Your task to perform on an android device: install app "Google Chrome" Image 0: 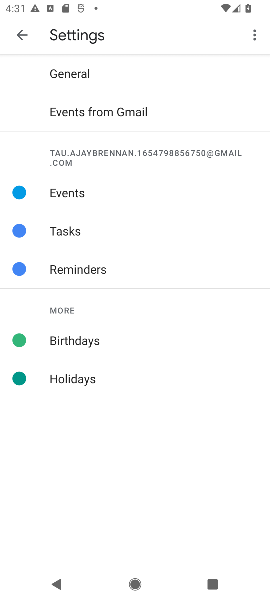
Step 0: press home button
Your task to perform on an android device: install app "Google Chrome" Image 1: 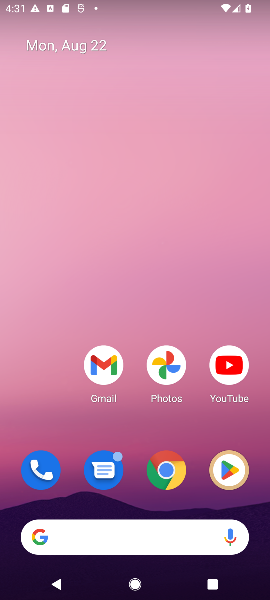
Step 1: drag from (115, 510) to (150, 74)
Your task to perform on an android device: install app "Google Chrome" Image 2: 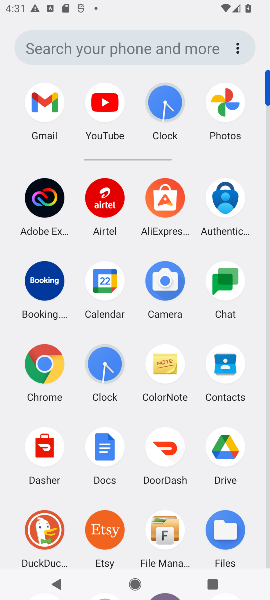
Step 2: drag from (141, 505) to (165, 167)
Your task to perform on an android device: install app "Google Chrome" Image 3: 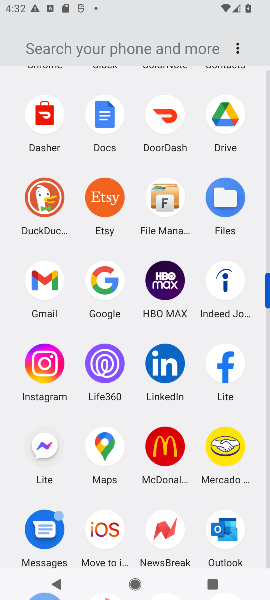
Step 3: drag from (148, 506) to (156, 202)
Your task to perform on an android device: install app "Google Chrome" Image 4: 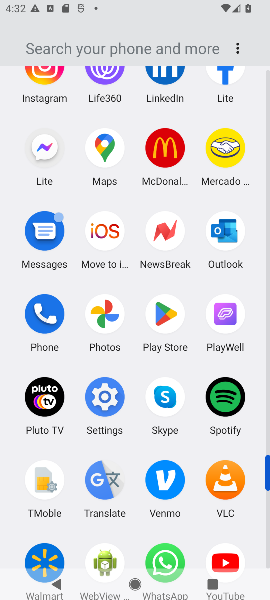
Step 4: click (157, 313)
Your task to perform on an android device: install app "Google Chrome" Image 5: 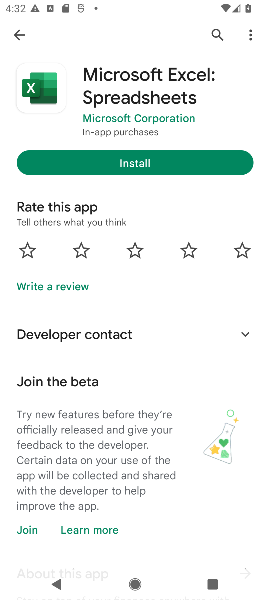
Step 5: click (20, 37)
Your task to perform on an android device: install app "Google Chrome" Image 6: 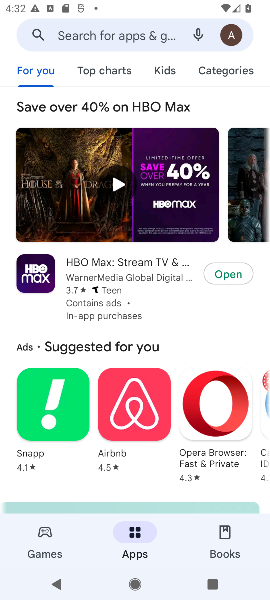
Step 6: click (67, 26)
Your task to perform on an android device: install app "Google Chrome" Image 7: 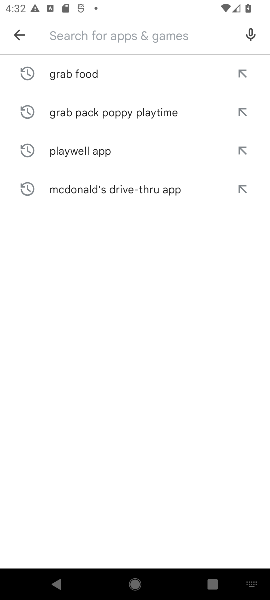
Step 7: type "Google Chrome "
Your task to perform on an android device: install app "Google Chrome" Image 8: 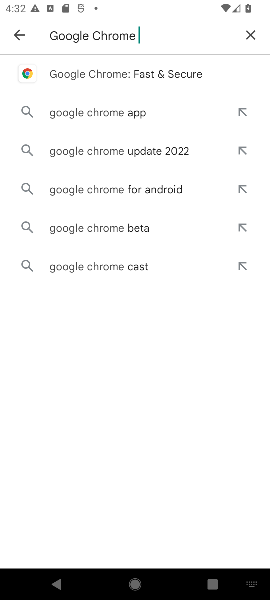
Step 8: click (97, 73)
Your task to perform on an android device: install app "Google Chrome" Image 9: 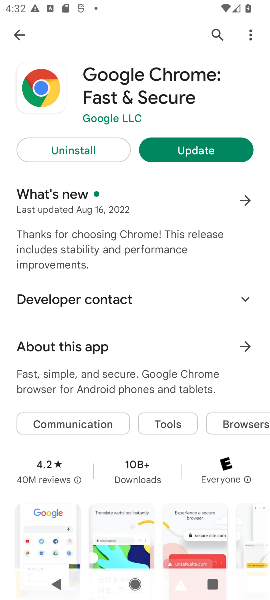
Step 9: click (191, 149)
Your task to perform on an android device: install app "Google Chrome" Image 10: 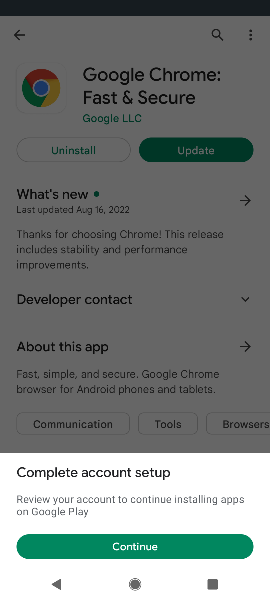
Step 10: task complete